Your task to perform on an android device: search for starred emails in the gmail app Image 0: 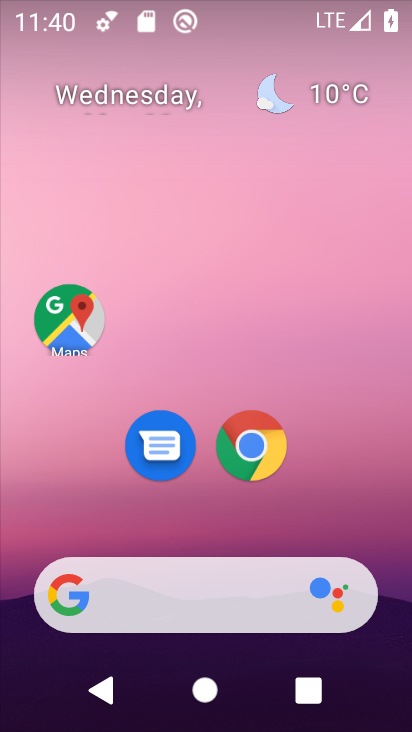
Step 0: drag from (201, 455) to (284, 65)
Your task to perform on an android device: search for starred emails in the gmail app Image 1: 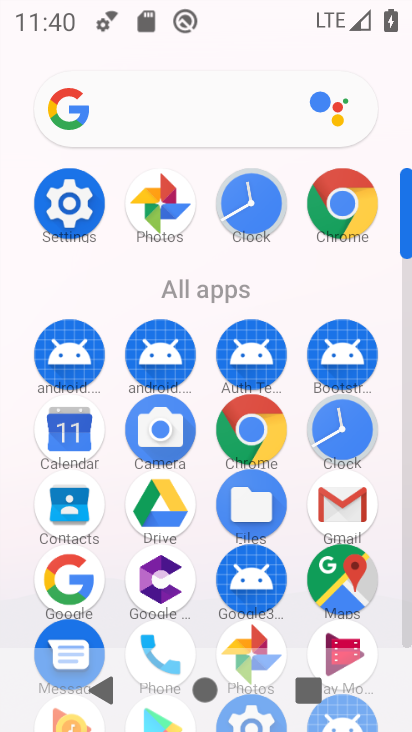
Step 1: click (343, 502)
Your task to perform on an android device: search for starred emails in the gmail app Image 2: 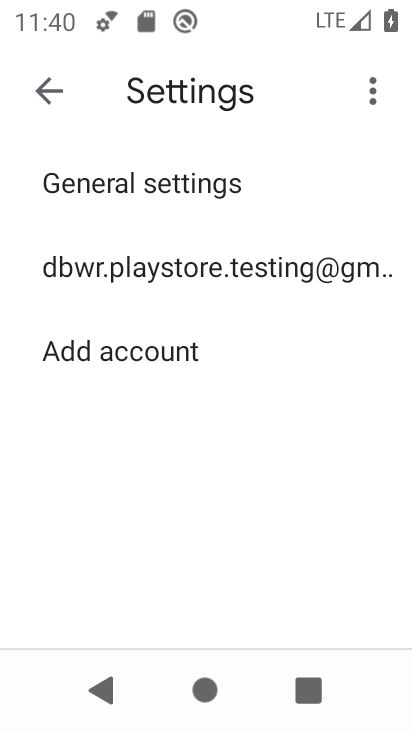
Step 2: click (50, 77)
Your task to perform on an android device: search for starred emails in the gmail app Image 3: 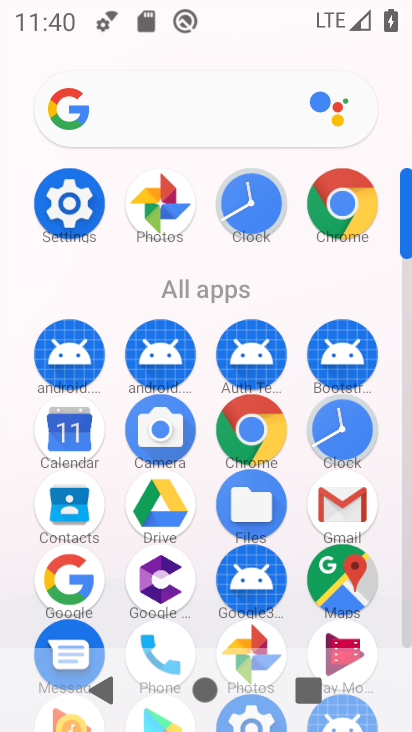
Step 3: click (343, 507)
Your task to perform on an android device: search for starred emails in the gmail app Image 4: 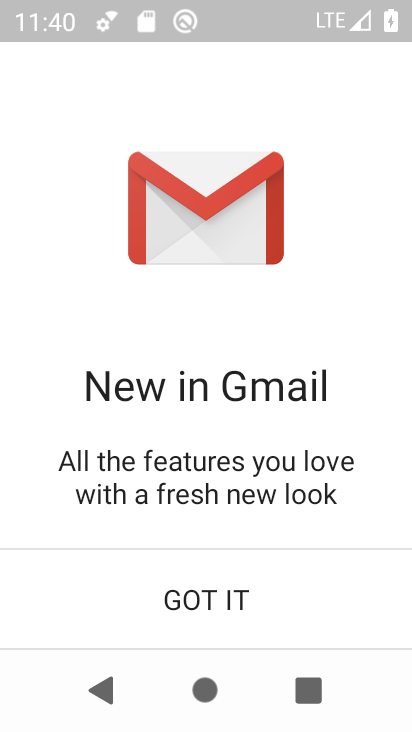
Step 4: click (194, 597)
Your task to perform on an android device: search for starred emails in the gmail app Image 5: 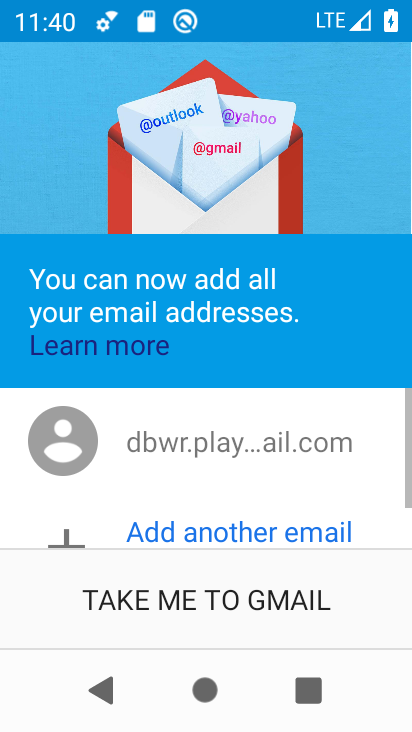
Step 5: click (153, 596)
Your task to perform on an android device: search for starred emails in the gmail app Image 6: 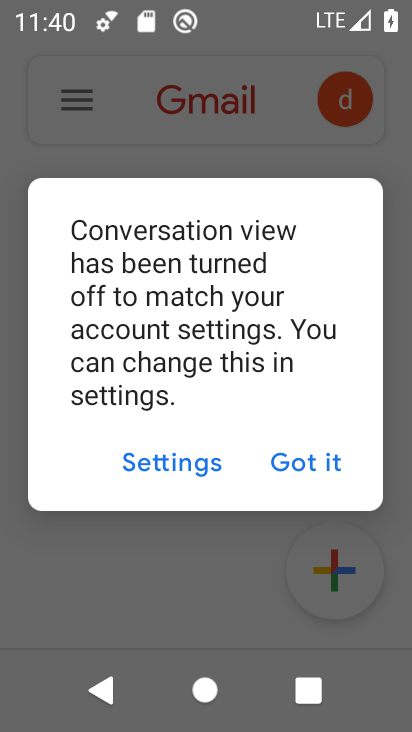
Step 6: click (292, 464)
Your task to perform on an android device: search for starred emails in the gmail app Image 7: 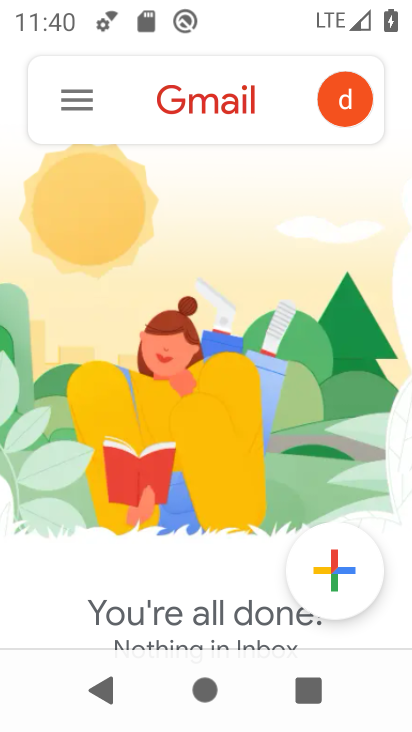
Step 7: click (75, 85)
Your task to perform on an android device: search for starred emails in the gmail app Image 8: 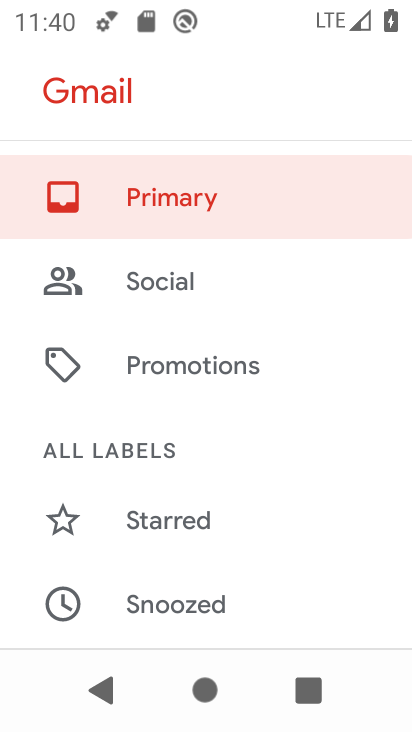
Step 8: click (179, 521)
Your task to perform on an android device: search for starred emails in the gmail app Image 9: 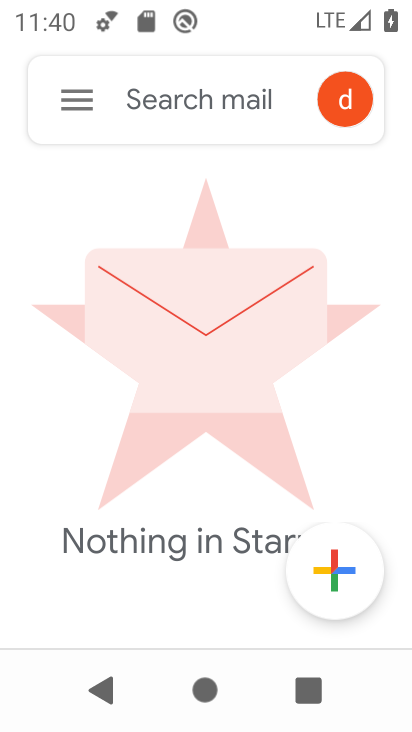
Step 9: task complete